Your task to perform on an android device: Go to Google Image 0: 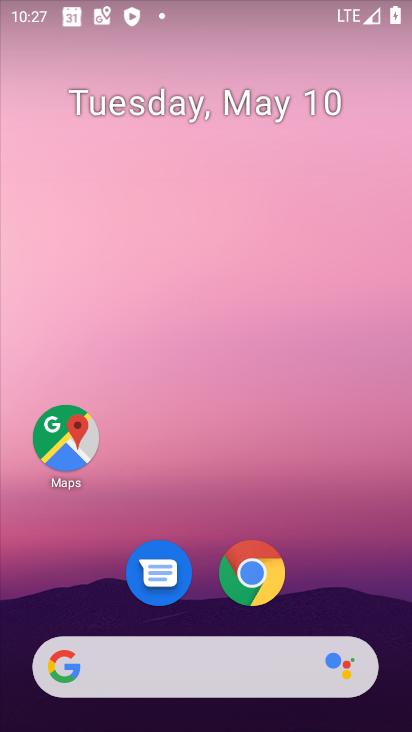
Step 0: click (192, 641)
Your task to perform on an android device: Go to Google Image 1: 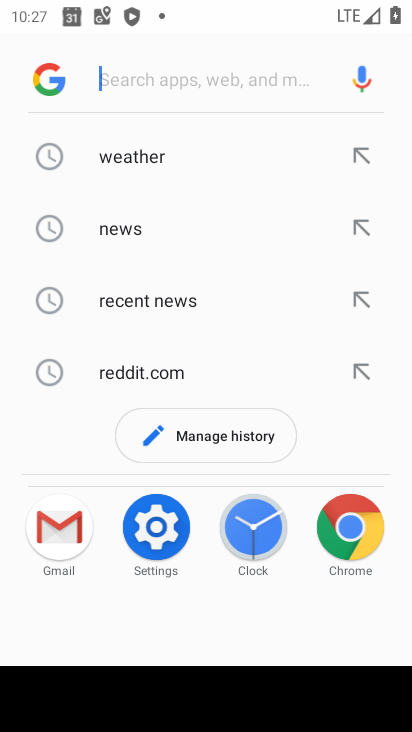
Step 1: task complete